Your task to perform on an android device: turn off sleep mode Image 0: 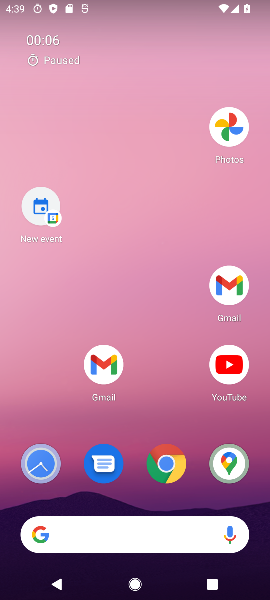
Step 0: drag from (192, 597) to (176, 212)
Your task to perform on an android device: turn off sleep mode Image 1: 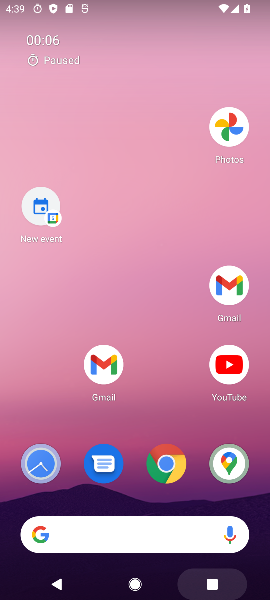
Step 1: drag from (173, 444) to (147, 160)
Your task to perform on an android device: turn off sleep mode Image 2: 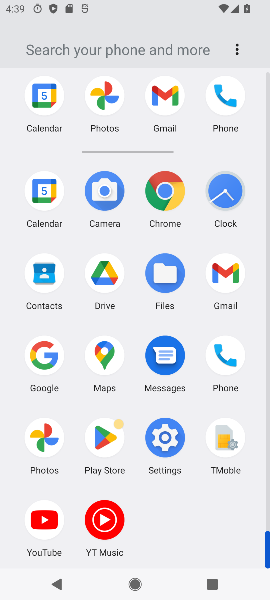
Step 2: click (160, 439)
Your task to perform on an android device: turn off sleep mode Image 3: 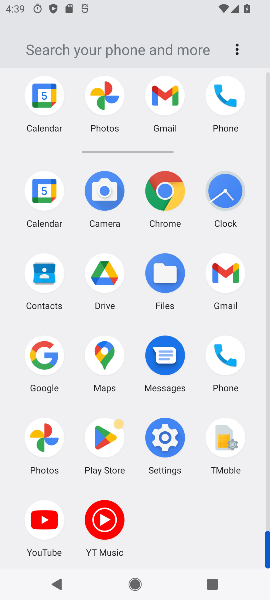
Step 3: click (160, 439)
Your task to perform on an android device: turn off sleep mode Image 4: 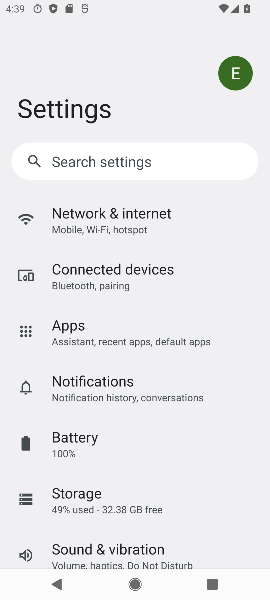
Step 4: click (160, 439)
Your task to perform on an android device: turn off sleep mode Image 5: 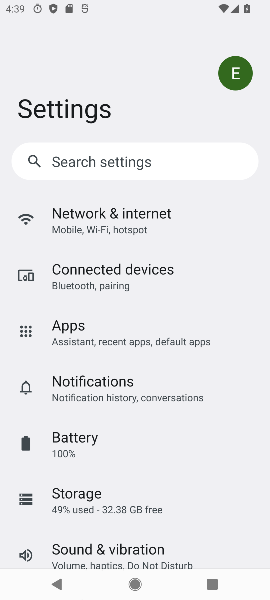
Step 5: click (161, 438)
Your task to perform on an android device: turn off sleep mode Image 6: 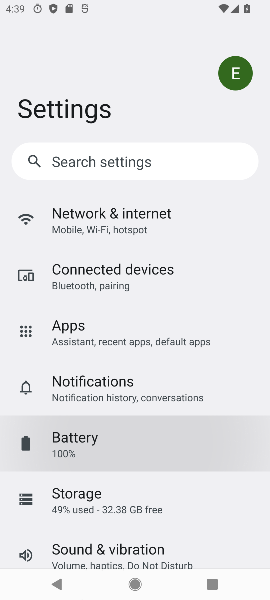
Step 6: click (162, 433)
Your task to perform on an android device: turn off sleep mode Image 7: 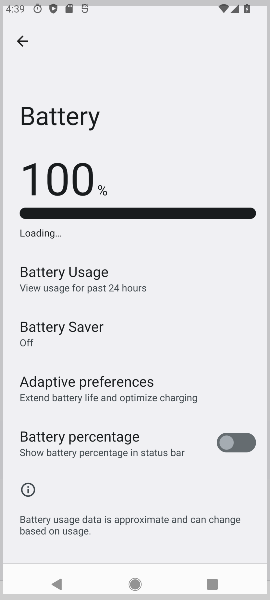
Step 7: click (161, 431)
Your task to perform on an android device: turn off sleep mode Image 8: 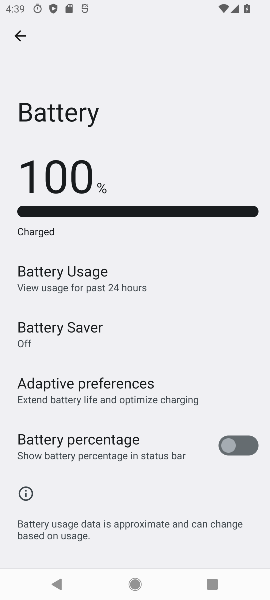
Step 8: click (161, 431)
Your task to perform on an android device: turn off sleep mode Image 9: 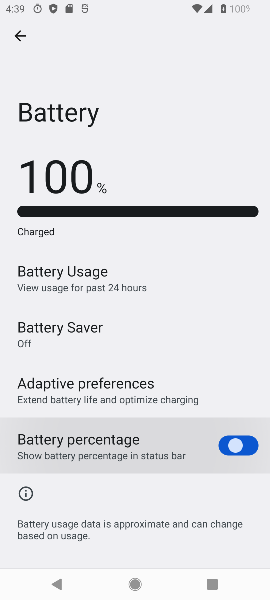
Step 9: click (161, 430)
Your task to perform on an android device: turn off sleep mode Image 10: 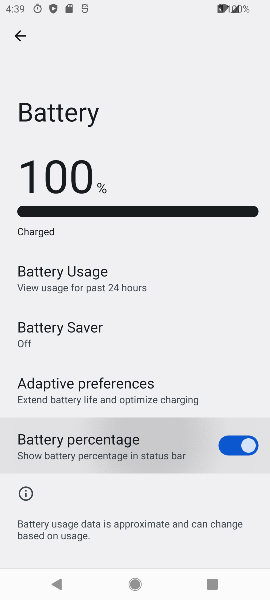
Step 10: click (161, 430)
Your task to perform on an android device: turn off sleep mode Image 11: 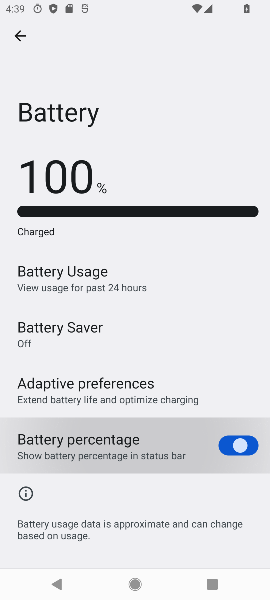
Step 11: click (164, 427)
Your task to perform on an android device: turn off sleep mode Image 12: 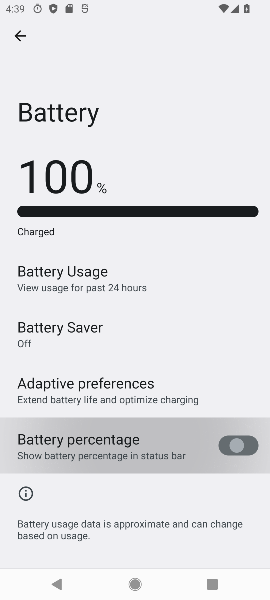
Step 12: click (165, 427)
Your task to perform on an android device: turn off sleep mode Image 13: 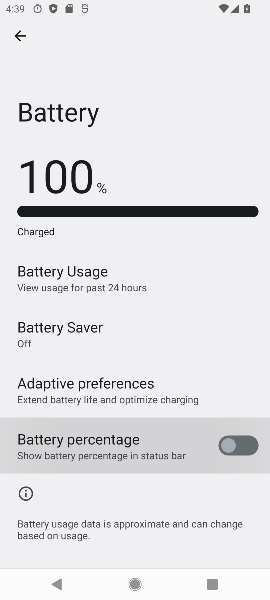
Step 13: click (165, 427)
Your task to perform on an android device: turn off sleep mode Image 14: 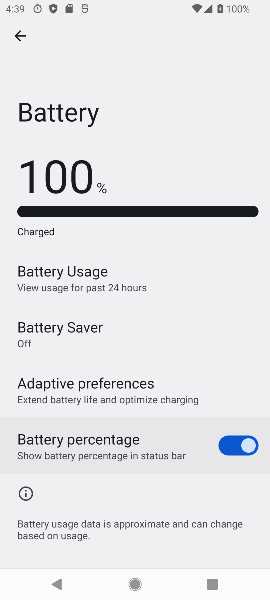
Step 14: click (24, 38)
Your task to perform on an android device: turn off sleep mode Image 15: 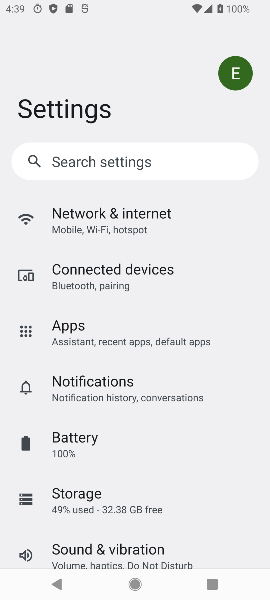
Step 15: drag from (122, 513) to (89, 128)
Your task to perform on an android device: turn off sleep mode Image 16: 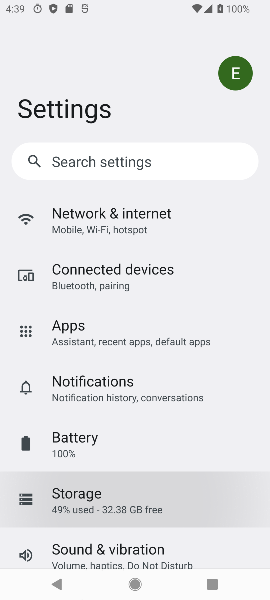
Step 16: drag from (109, 362) to (71, 209)
Your task to perform on an android device: turn off sleep mode Image 17: 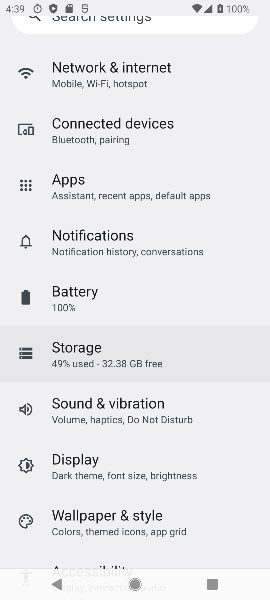
Step 17: drag from (64, 379) to (64, 144)
Your task to perform on an android device: turn off sleep mode Image 18: 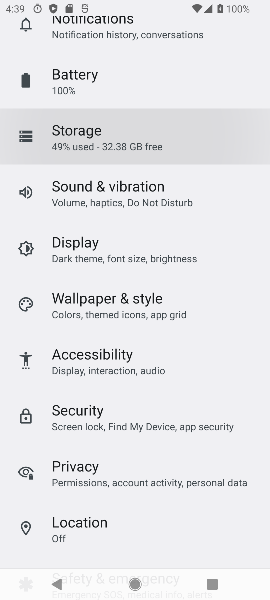
Step 18: drag from (97, 436) to (103, 151)
Your task to perform on an android device: turn off sleep mode Image 19: 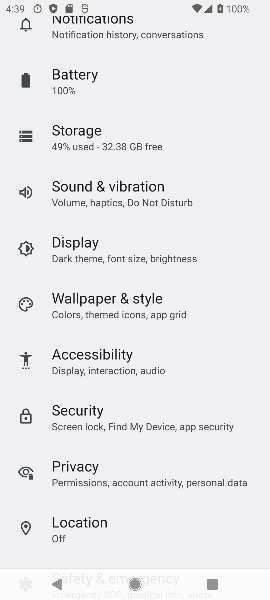
Step 19: drag from (101, 381) to (90, 182)
Your task to perform on an android device: turn off sleep mode Image 20: 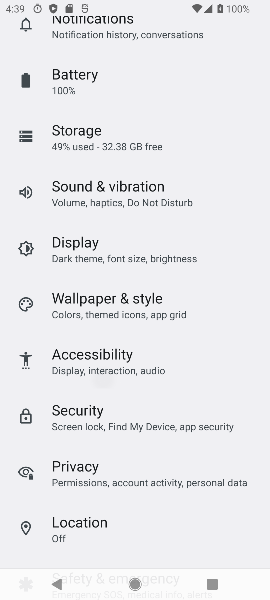
Step 20: drag from (125, 453) to (123, 225)
Your task to perform on an android device: turn off sleep mode Image 21: 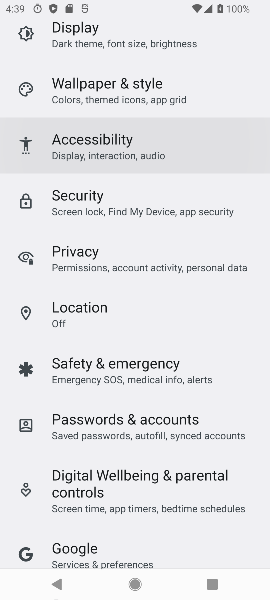
Step 21: drag from (132, 305) to (152, 137)
Your task to perform on an android device: turn off sleep mode Image 22: 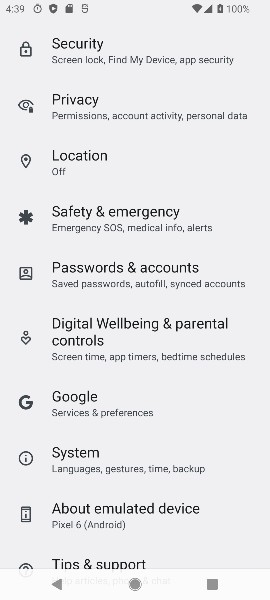
Step 22: drag from (161, 287) to (161, 129)
Your task to perform on an android device: turn off sleep mode Image 23: 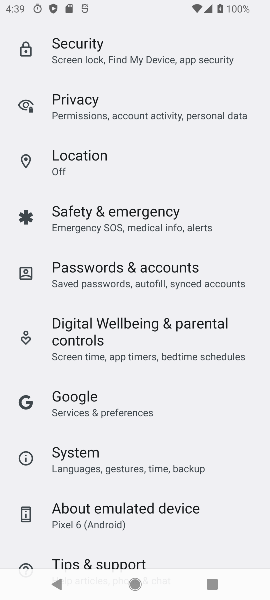
Step 23: drag from (146, 524) to (136, 164)
Your task to perform on an android device: turn off sleep mode Image 24: 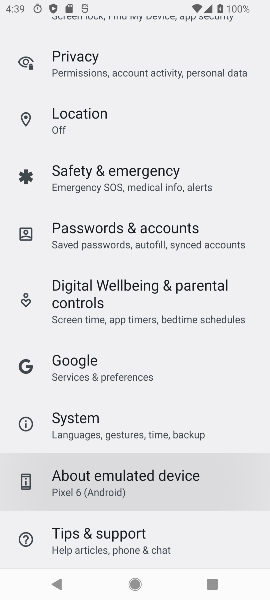
Step 24: drag from (152, 368) to (180, 119)
Your task to perform on an android device: turn off sleep mode Image 25: 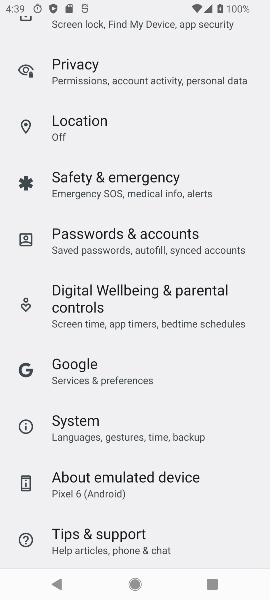
Step 25: drag from (152, 298) to (152, 154)
Your task to perform on an android device: turn off sleep mode Image 26: 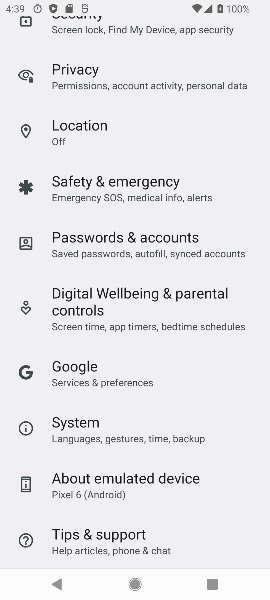
Step 26: drag from (124, 440) to (119, 123)
Your task to perform on an android device: turn off sleep mode Image 27: 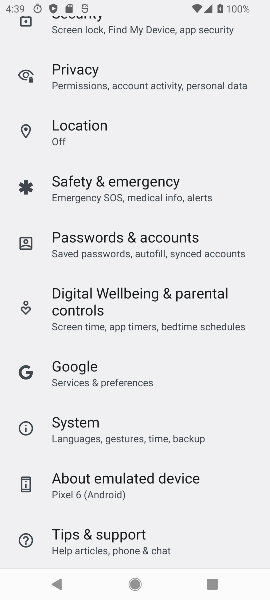
Step 27: drag from (100, 149) to (160, 459)
Your task to perform on an android device: turn off sleep mode Image 28: 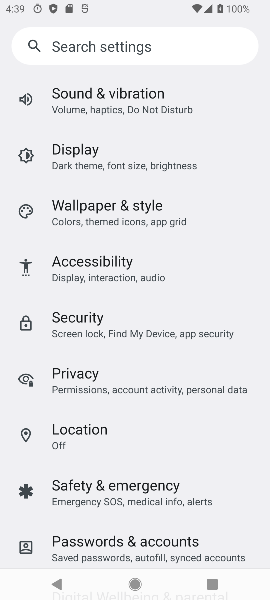
Step 28: drag from (151, 197) to (186, 475)
Your task to perform on an android device: turn off sleep mode Image 29: 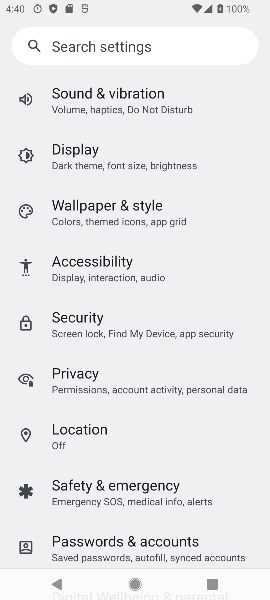
Step 29: drag from (119, 180) to (118, 516)
Your task to perform on an android device: turn off sleep mode Image 30: 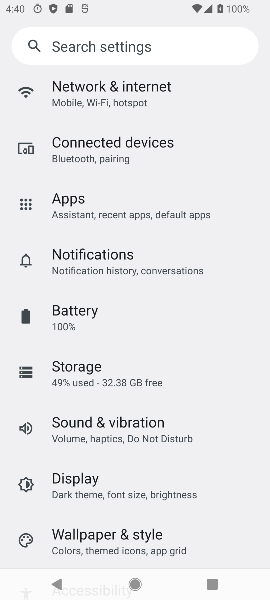
Step 30: drag from (121, 214) to (112, 513)
Your task to perform on an android device: turn off sleep mode Image 31: 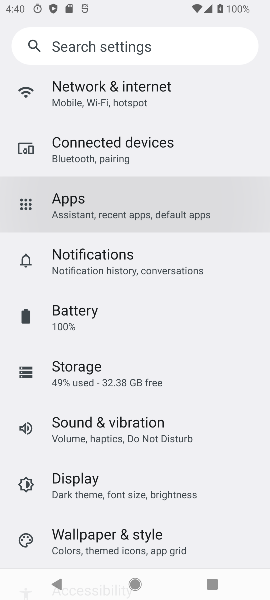
Step 31: drag from (85, 207) to (115, 413)
Your task to perform on an android device: turn off sleep mode Image 32: 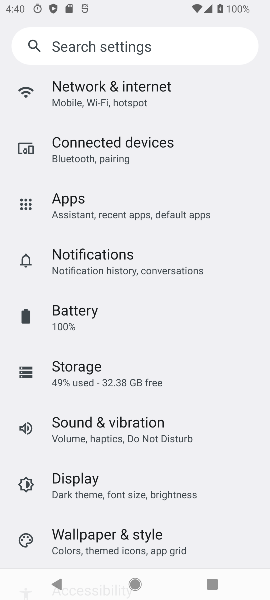
Step 32: click (144, 434)
Your task to perform on an android device: turn off sleep mode Image 33: 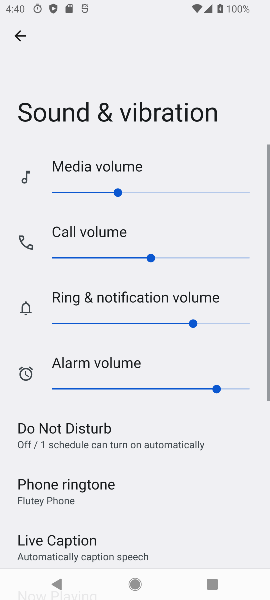
Step 33: task complete